Your task to perform on an android device: Show the shopping cart on target. Add "alienware aurora" to the cart on target Image 0: 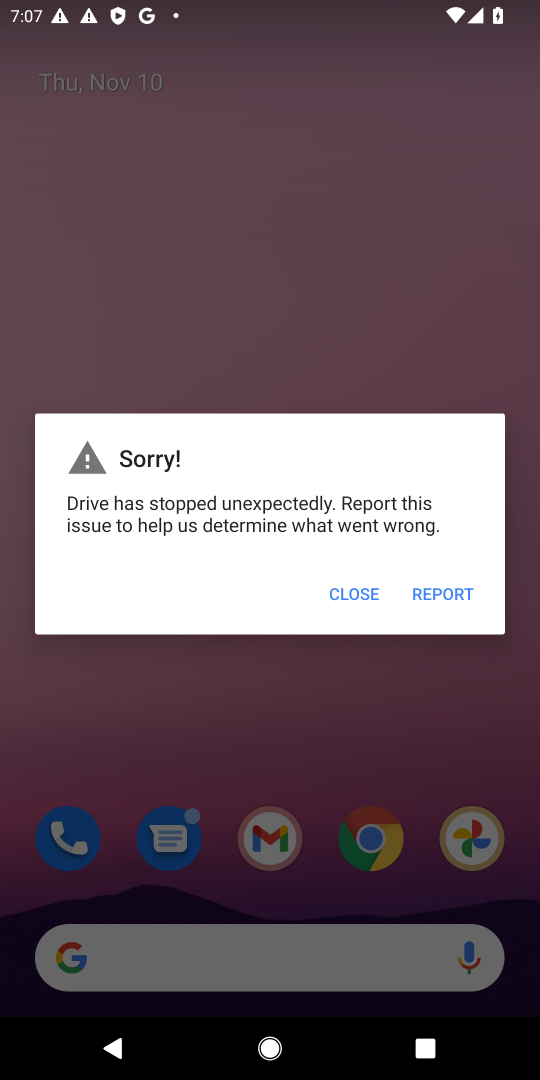
Step 0: press home button
Your task to perform on an android device: Show the shopping cart on target. Add "alienware aurora" to the cart on target Image 1: 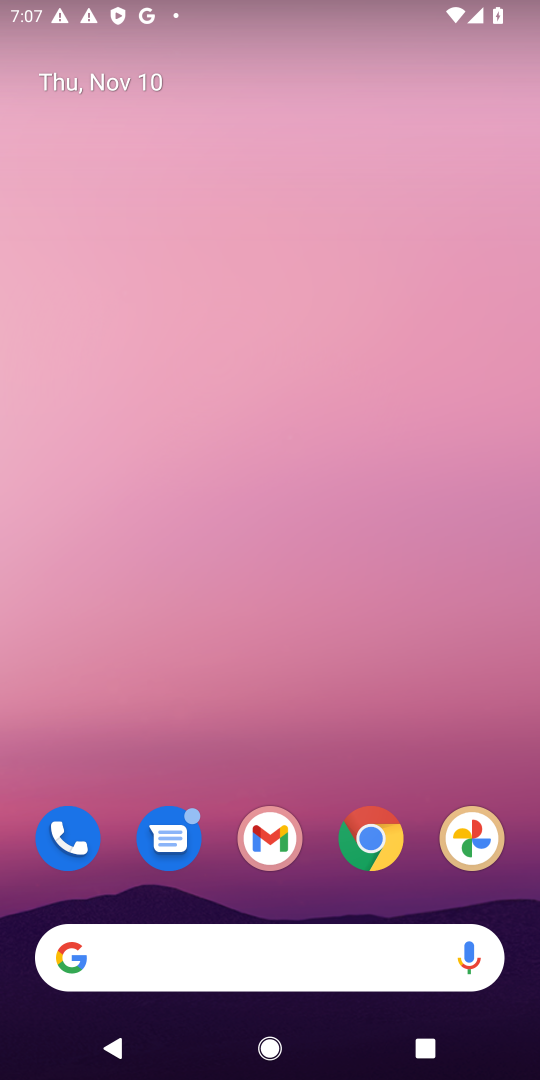
Step 1: drag from (314, 900) to (370, 116)
Your task to perform on an android device: Show the shopping cart on target. Add "alienware aurora" to the cart on target Image 2: 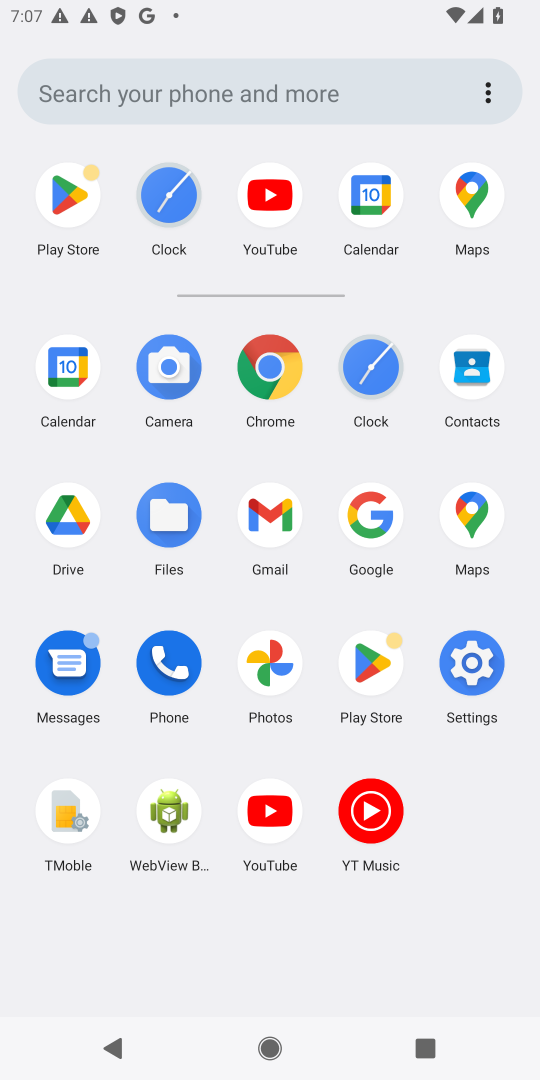
Step 2: click (263, 375)
Your task to perform on an android device: Show the shopping cart on target. Add "alienware aurora" to the cart on target Image 3: 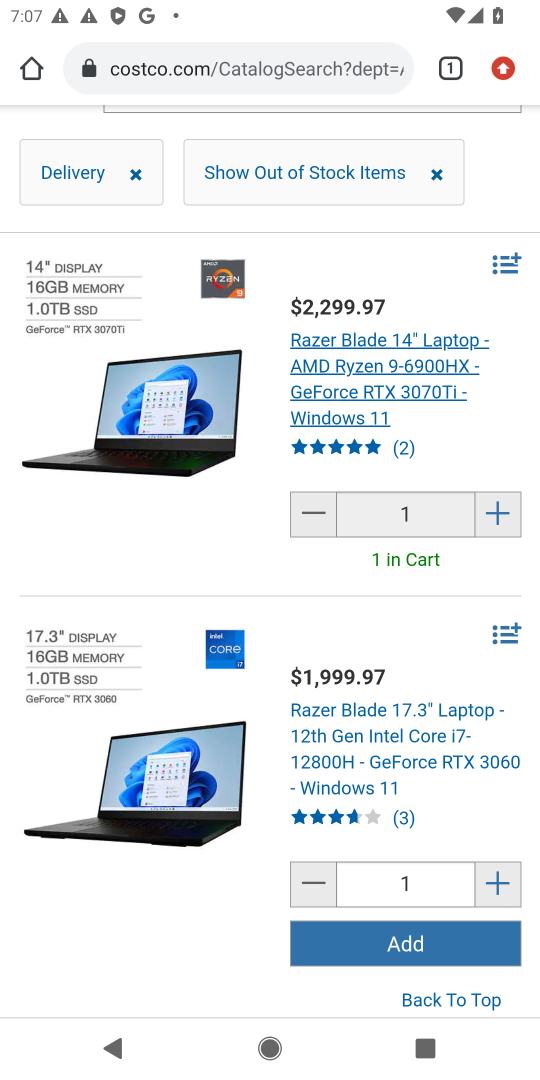
Step 3: click (273, 72)
Your task to perform on an android device: Show the shopping cart on target. Add "alienware aurora" to the cart on target Image 4: 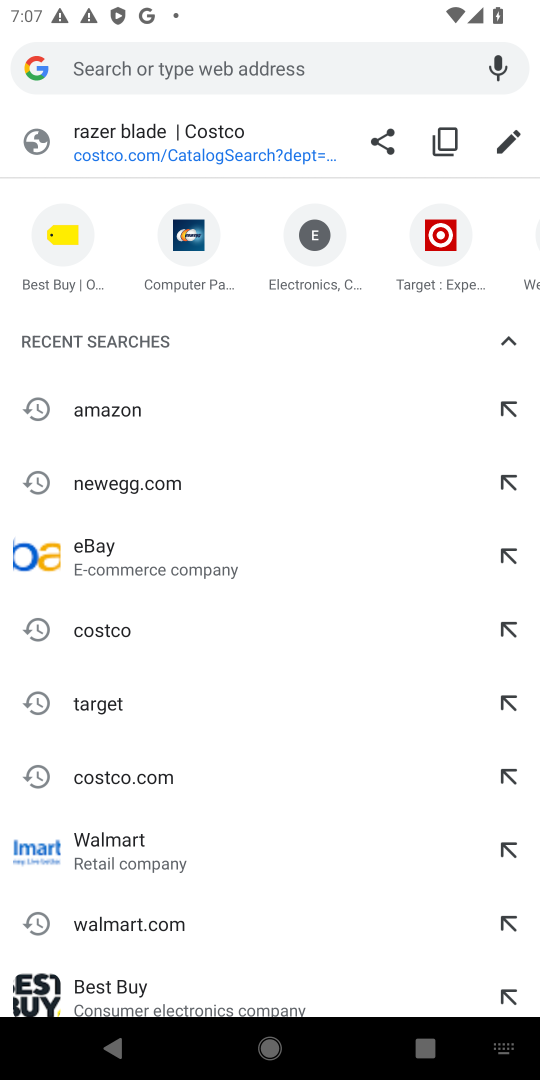
Step 4: type "target.com"
Your task to perform on an android device: Show the shopping cart on target. Add "alienware aurora" to the cart on target Image 5: 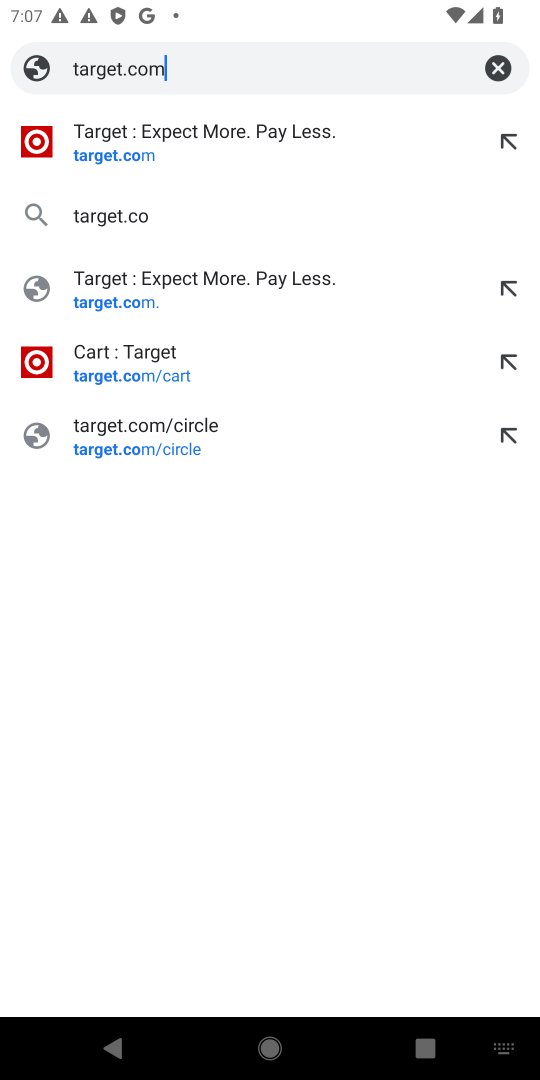
Step 5: press enter
Your task to perform on an android device: Show the shopping cart on target. Add "alienware aurora" to the cart on target Image 6: 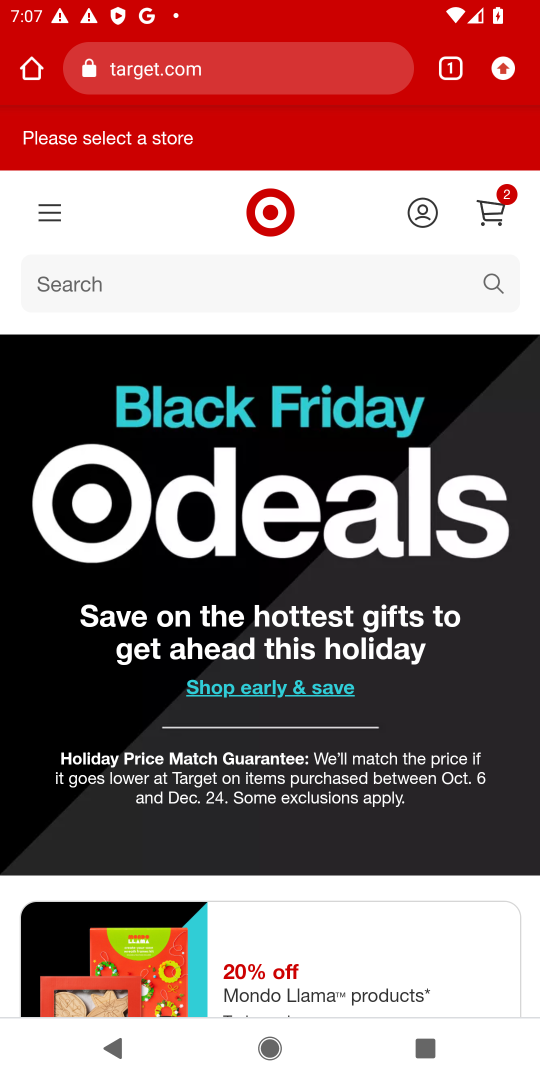
Step 6: click (494, 203)
Your task to perform on an android device: Show the shopping cart on target. Add "alienware aurora" to the cart on target Image 7: 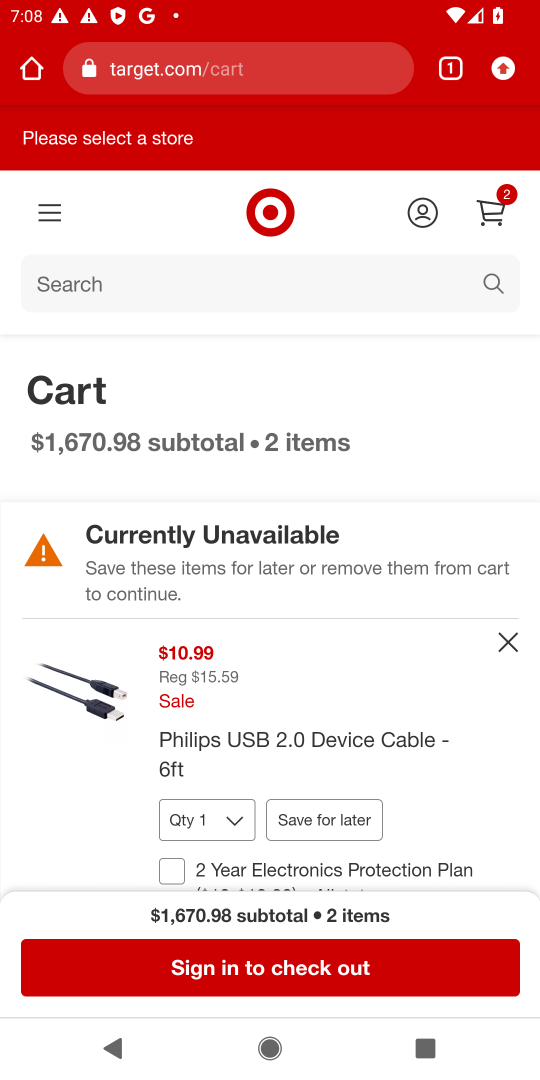
Step 7: click (322, 291)
Your task to perform on an android device: Show the shopping cart on target. Add "alienware aurora" to the cart on target Image 8: 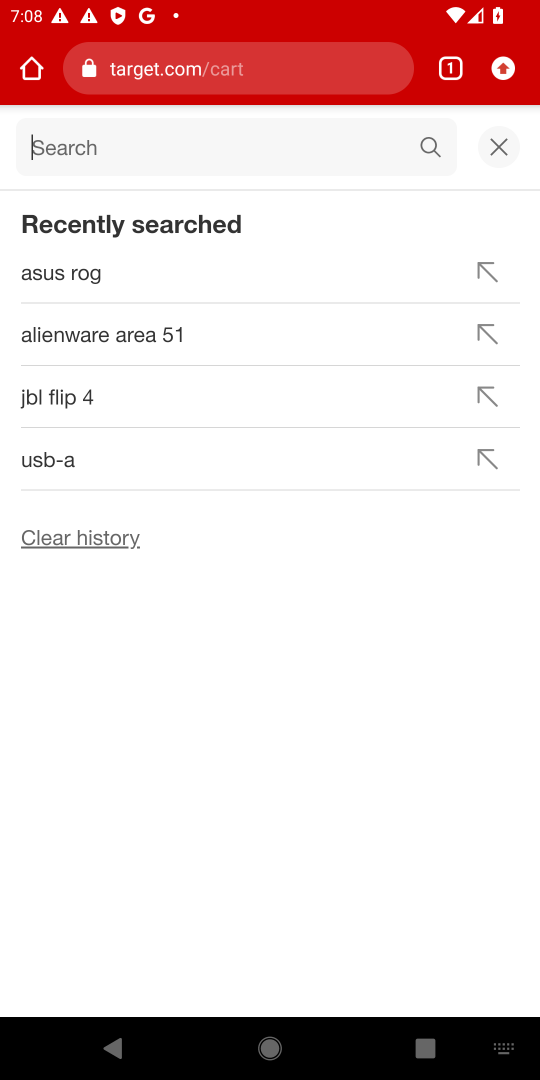
Step 8: type "alienware aurora"
Your task to perform on an android device: Show the shopping cart on target. Add "alienware aurora" to the cart on target Image 9: 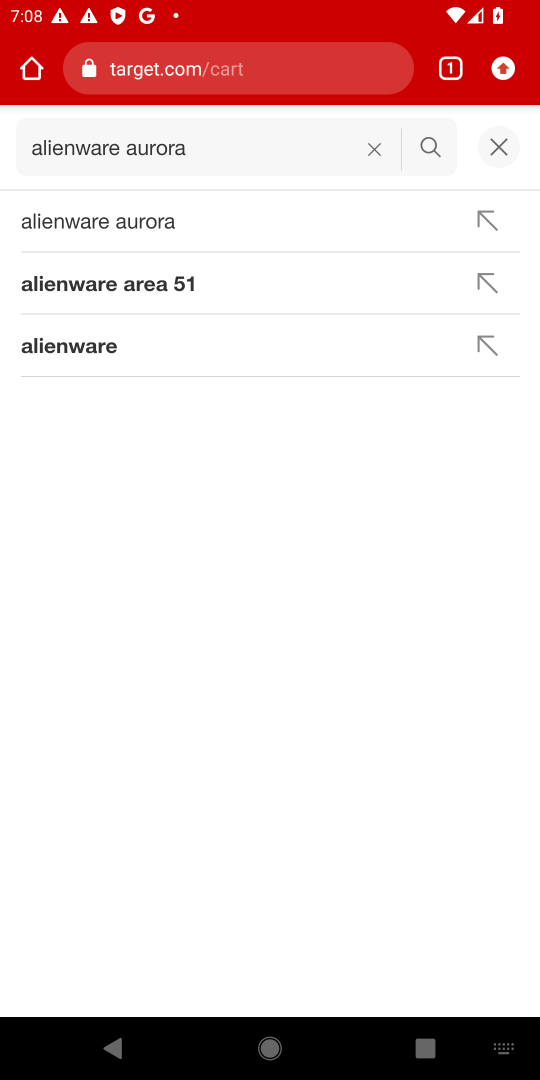
Step 9: press enter
Your task to perform on an android device: Show the shopping cart on target. Add "alienware aurora" to the cart on target Image 10: 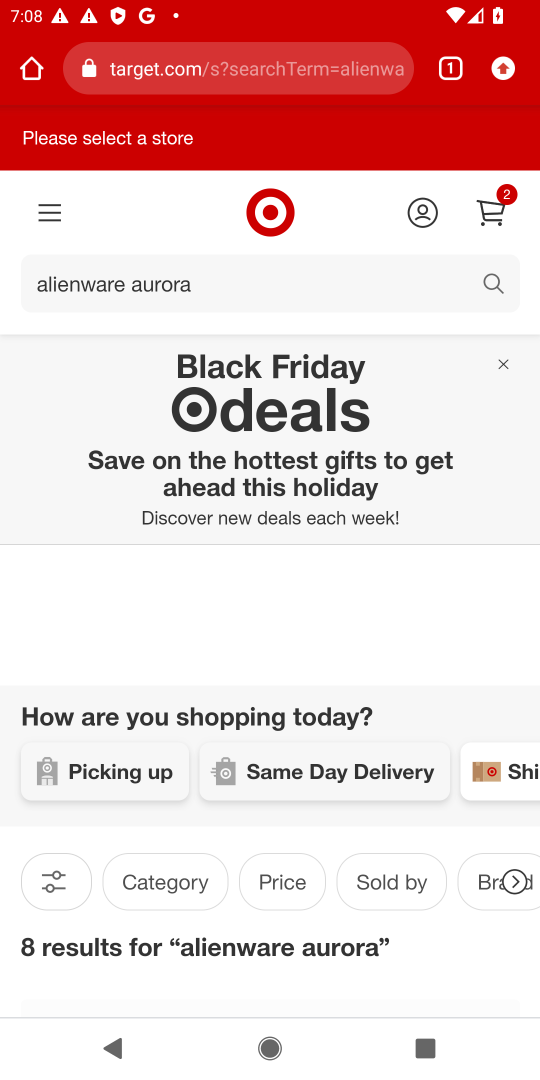
Step 10: task complete